Your task to perform on an android device: turn on translation in the chrome app Image 0: 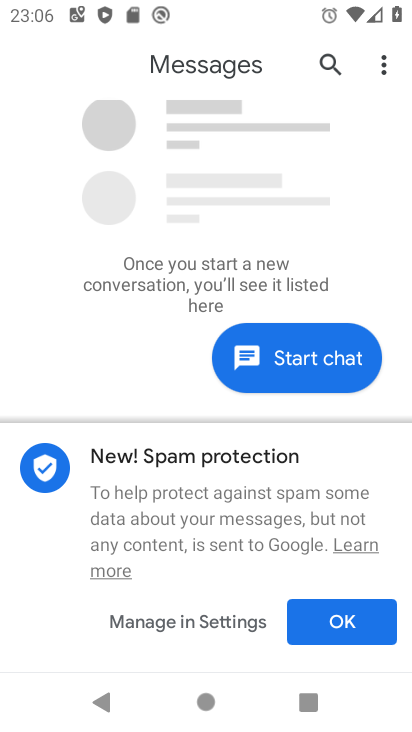
Step 0: press home button
Your task to perform on an android device: turn on translation in the chrome app Image 1: 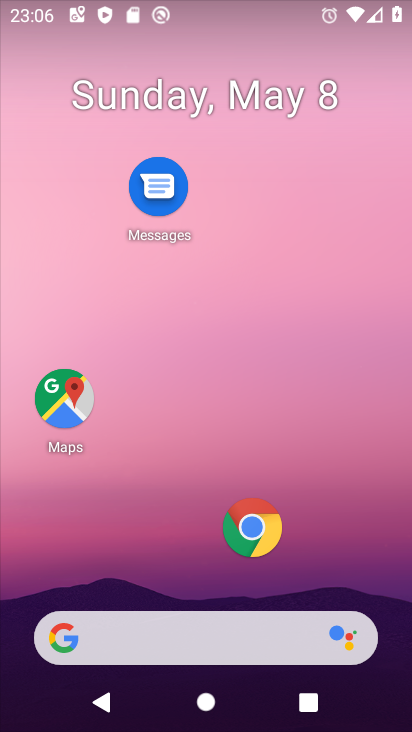
Step 1: click (254, 531)
Your task to perform on an android device: turn on translation in the chrome app Image 2: 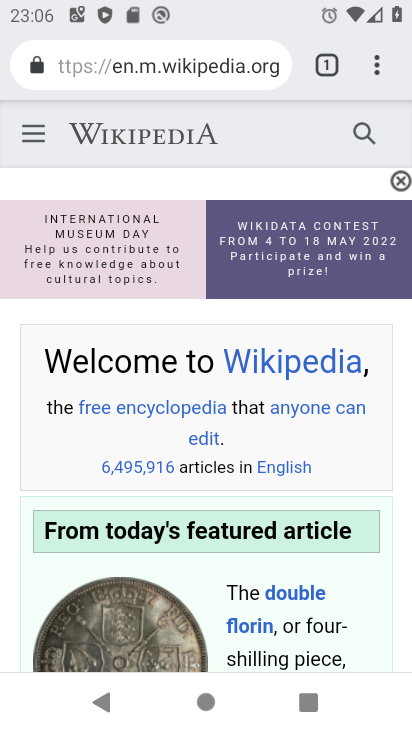
Step 2: click (363, 69)
Your task to perform on an android device: turn on translation in the chrome app Image 3: 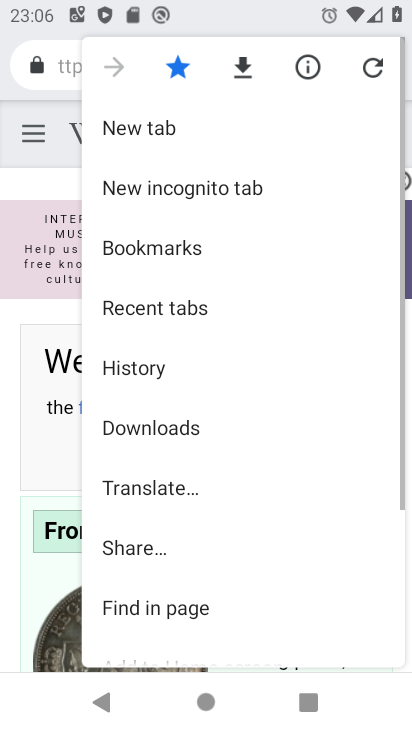
Step 3: drag from (257, 564) to (286, 123)
Your task to perform on an android device: turn on translation in the chrome app Image 4: 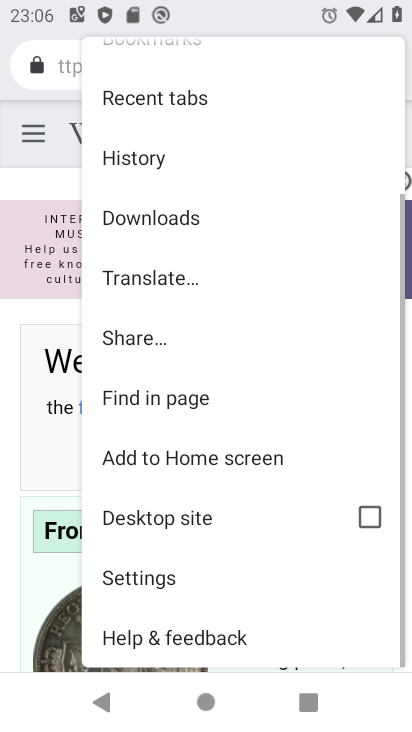
Step 4: click (164, 575)
Your task to perform on an android device: turn on translation in the chrome app Image 5: 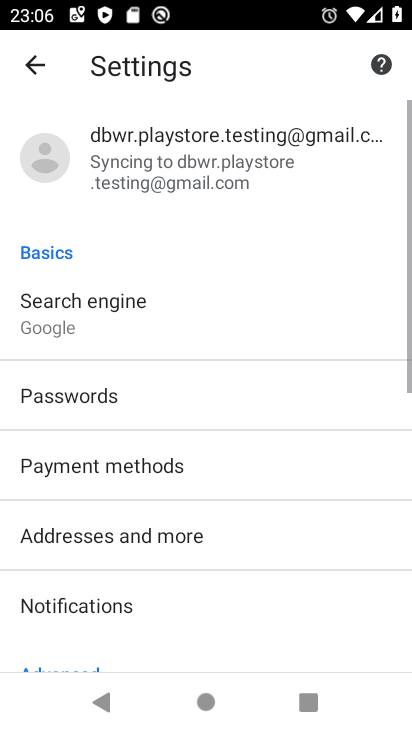
Step 5: drag from (212, 545) to (253, 64)
Your task to perform on an android device: turn on translation in the chrome app Image 6: 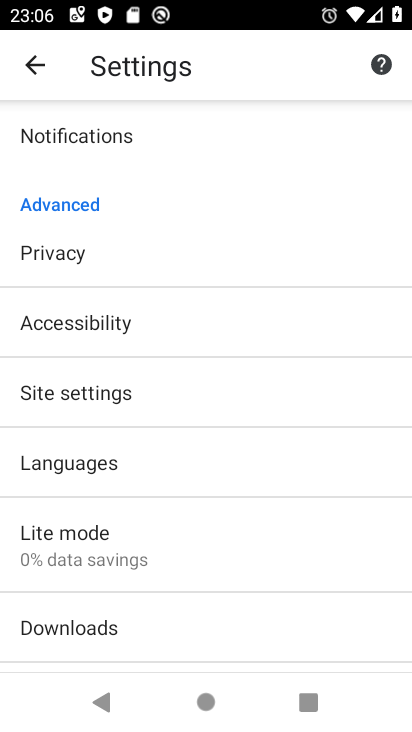
Step 6: click (74, 464)
Your task to perform on an android device: turn on translation in the chrome app Image 7: 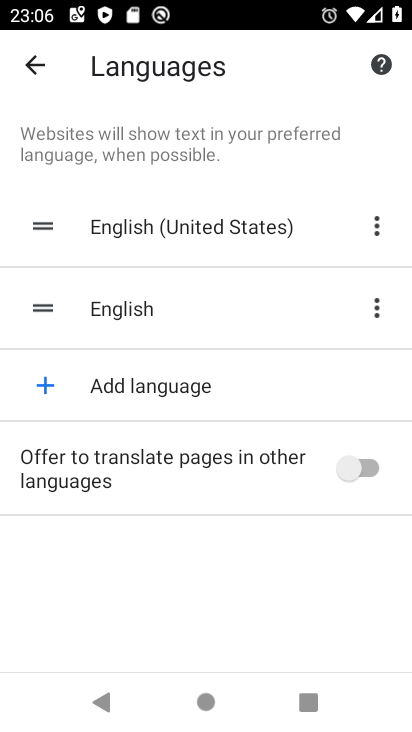
Step 7: click (347, 466)
Your task to perform on an android device: turn on translation in the chrome app Image 8: 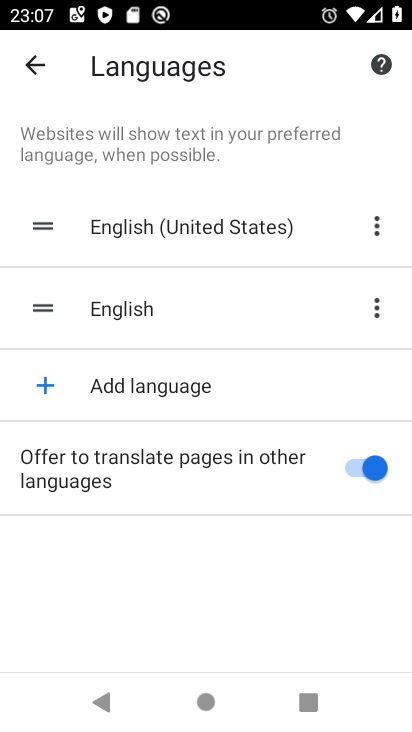
Step 8: task complete